Your task to perform on an android device: open a bookmark in the chrome app Image 0: 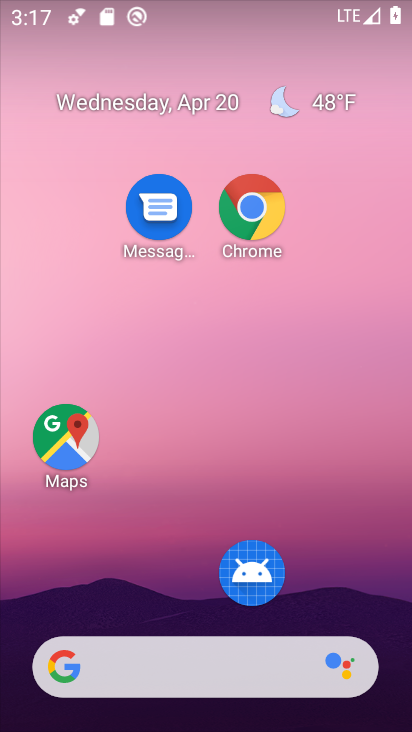
Step 0: click (259, 219)
Your task to perform on an android device: open a bookmark in the chrome app Image 1: 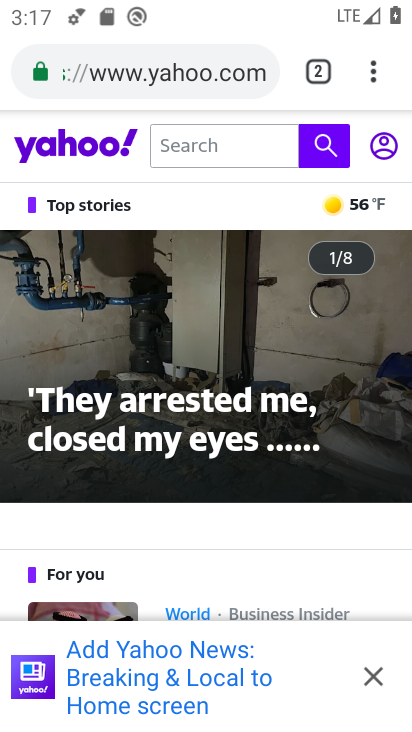
Step 1: click (381, 81)
Your task to perform on an android device: open a bookmark in the chrome app Image 2: 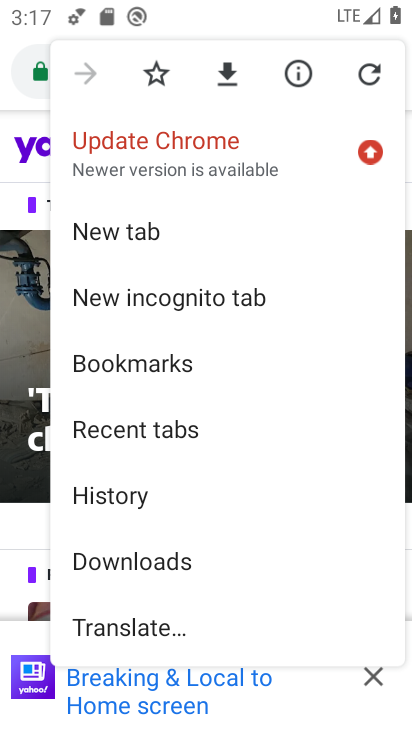
Step 2: click (194, 368)
Your task to perform on an android device: open a bookmark in the chrome app Image 3: 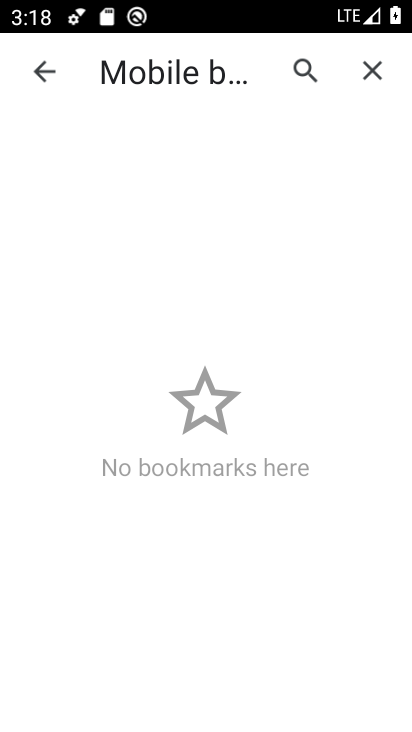
Step 3: task complete